Your task to perform on an android device: turn off javascript in the chrome app Image 0: 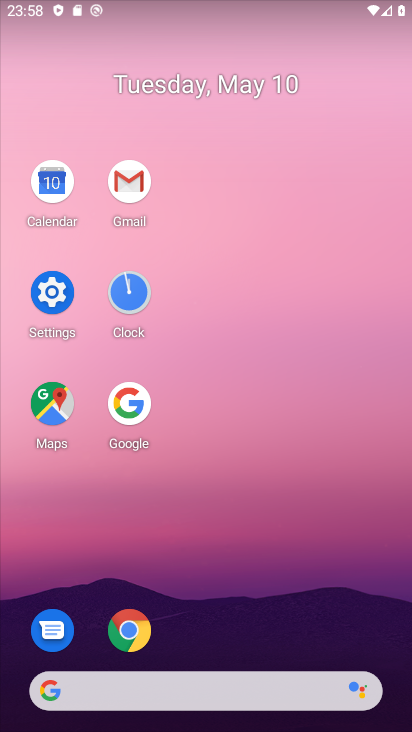
Step 0: click (137, 630)
Your task to perform on an android device: turn off javascript in the chrome app Image 1: 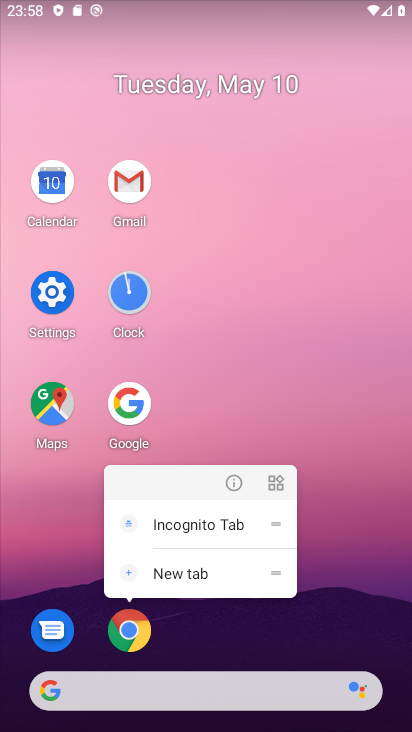
Step 1: click (137, 630)
Your task to perform on an android device: turn off javascript in the chrome app Image 2: 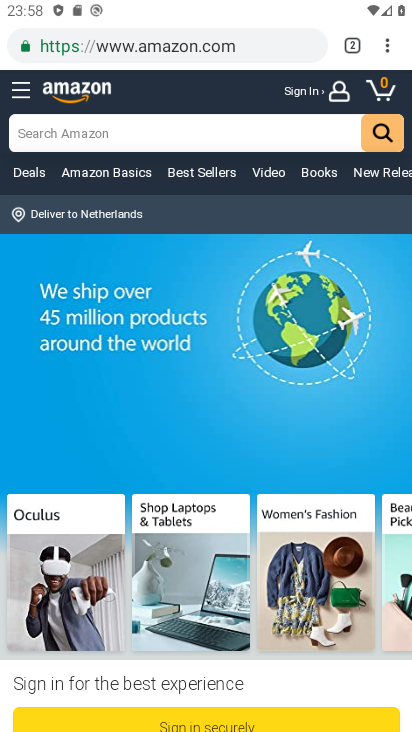
Step 2: click (384, 46)
Your task to perform on an android device: turn off javascript in the chrome app Image 3: 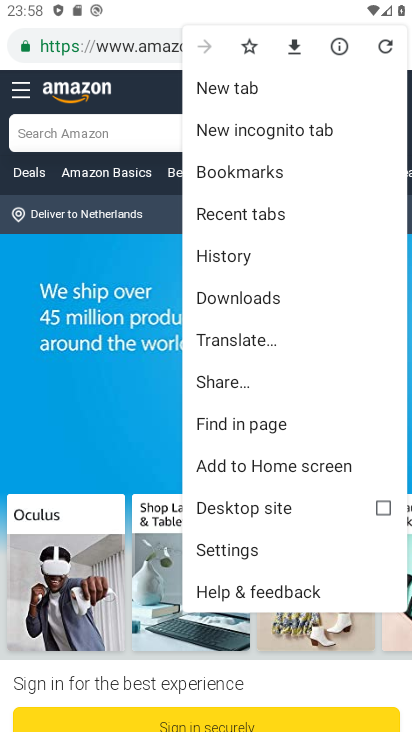
Step 3: click (259, 549)
Your task to perform on an android device: turn off javascript in the chrome app Image 4: 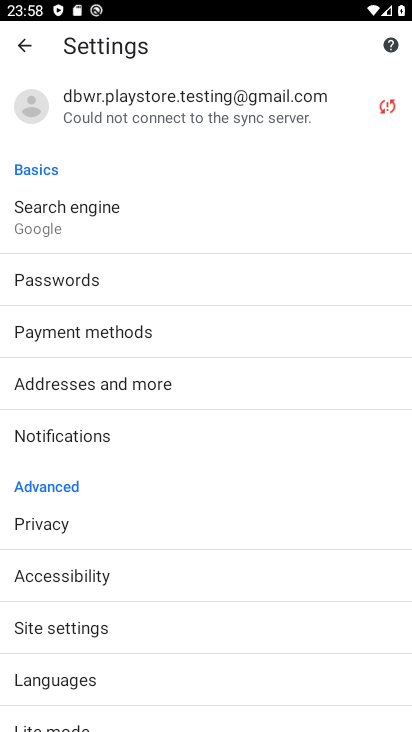
Step 4: drag from (257, 548) to (298, 267)
Your task to perform on an android device: turn off javascript in the chrome app Image 5: 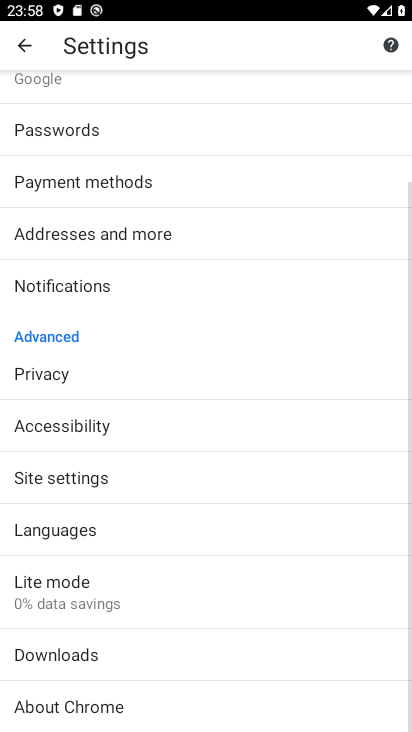
Step 5: click (140, 490)
Your task to perform on an android device: turn off javascript in the chrome app Image 6: 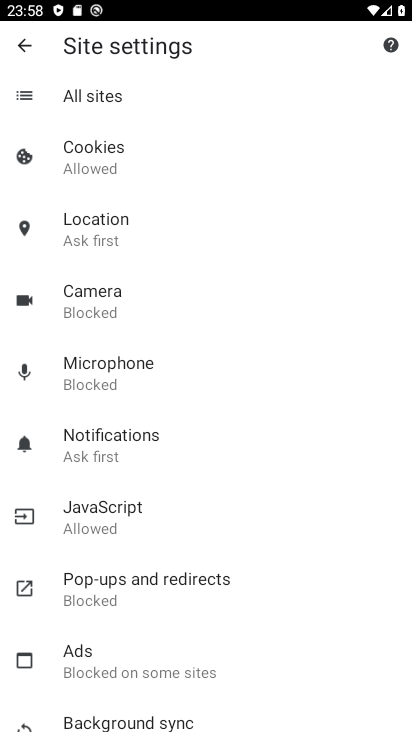
Step 6: click (146, 505)
Your task to perform on an android device: turn off javascript in the chrome app Image 7: 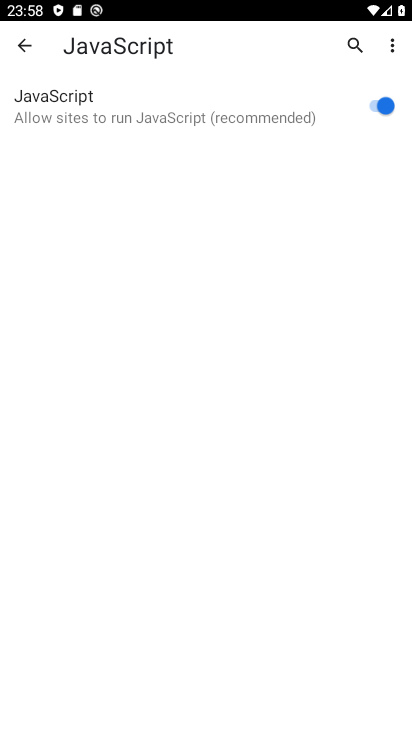
Step 7: click (384, 112)
Your task to perform on an android device: turn off javascript in the chrome app Image 8: 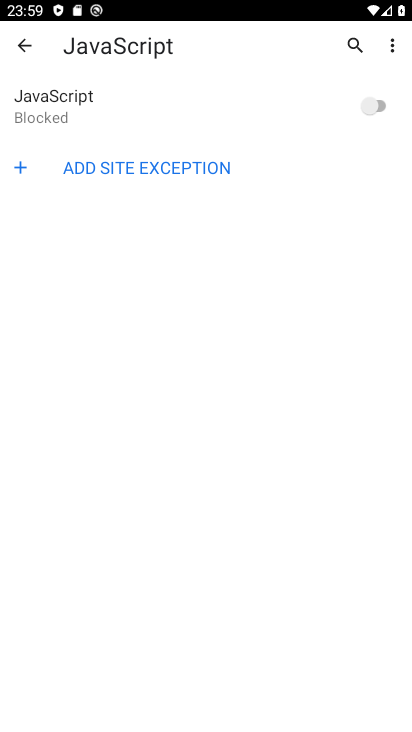
Step 8: task complete